Your task to perform on an android device: Open Chrome and go to settings Image 0: 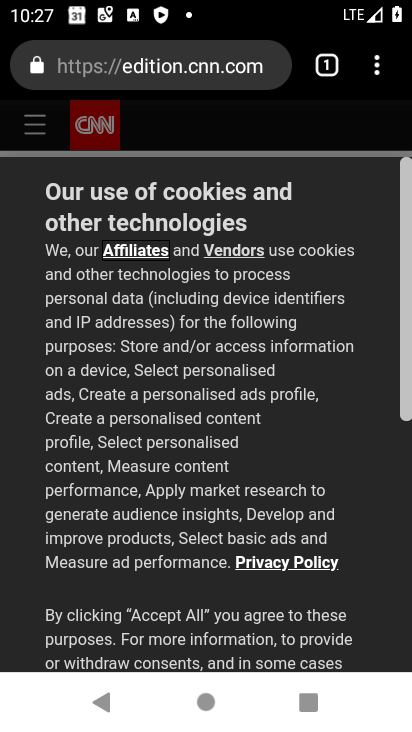
Step 0: drag from (391, 76) to (193, 575)
Your task to perform on an android device: Open Chrome and go to settings Image 1: 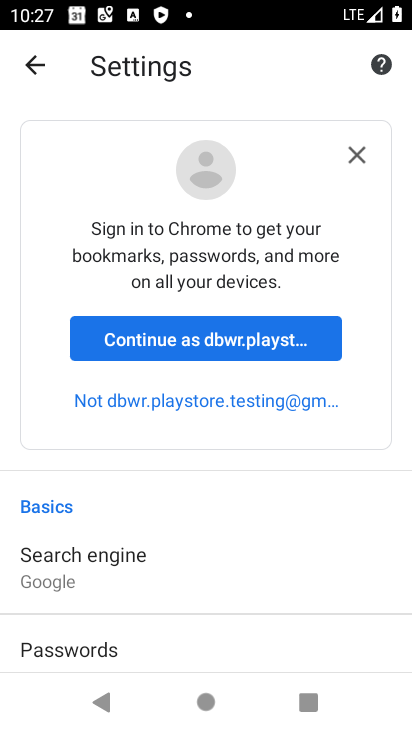
Step 1: task complete